Your task to perform on an android device: Go to wifi settings Image 0: 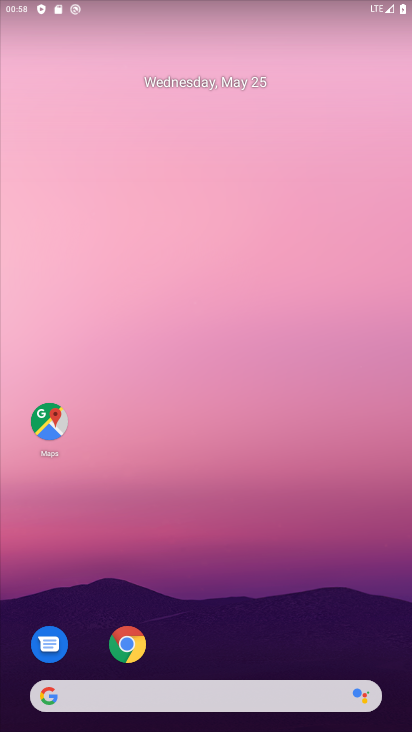
Step 0: drag from (260, 541) to (193, 38)
Your task to perform on an android device: Go to wifi settings Image 1: 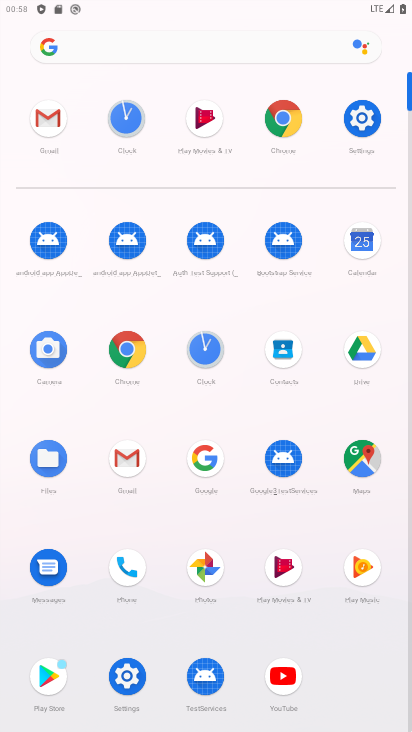
Step 1: click (360, 123)
Your task to perform on an android device: Go to wifi settings Image 2: 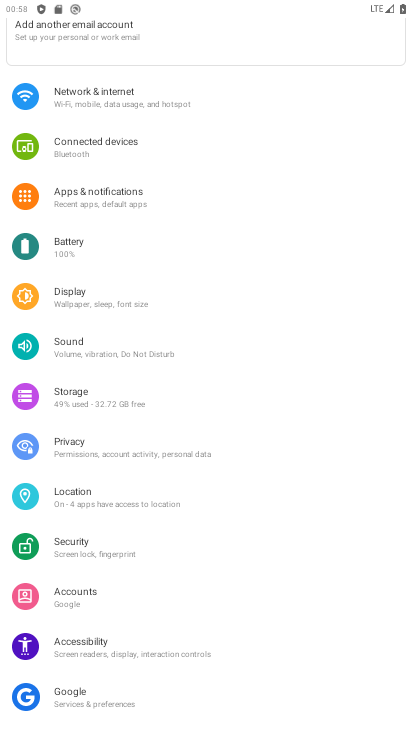
Step 2: click (92, 88)
Your task to perform on an android device: Go to wifi settings Image 3: 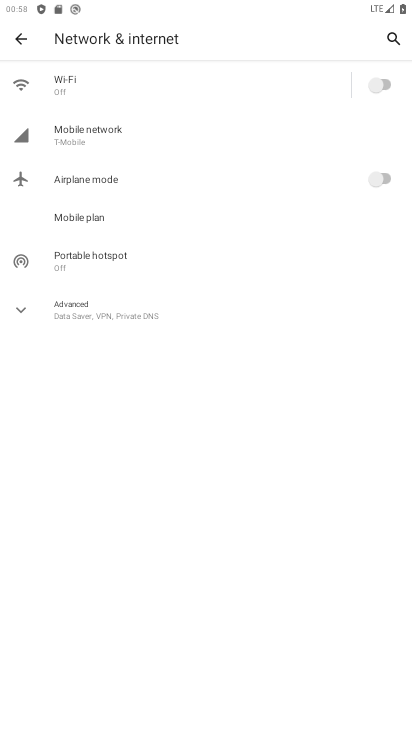
Step 3: click (166, 81)
Your task to perform on an android device: Go to wifi settings Image 4: 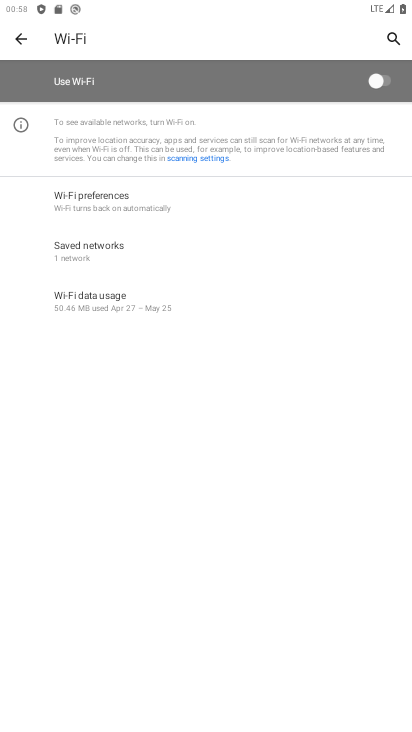
Step 4: task complete